Your task to perform on an android device: choose inbox layout in the gmail app Image 0: 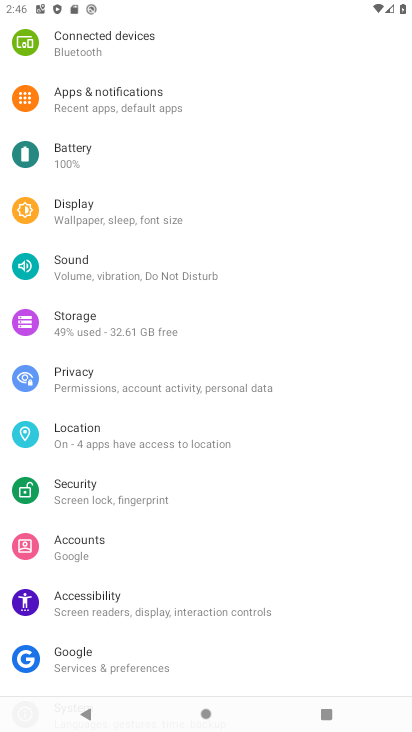
Step 0: press home button
Your task to perform on an android device: choose inbox layout in the gmail app Image 1: 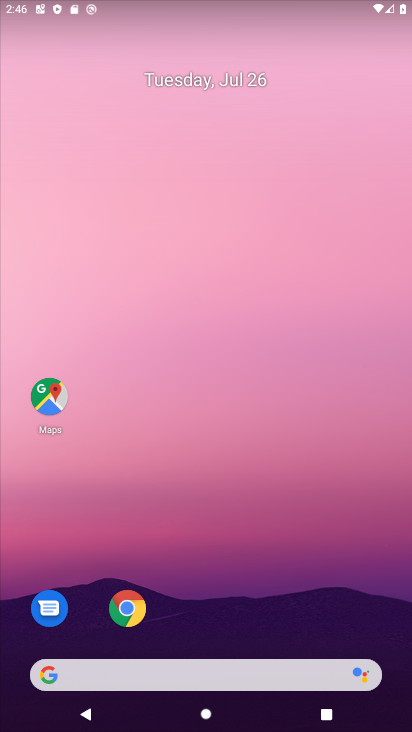
Step 1: drag from (332, 505) to (301, 209)
Your task to perform on an android device: choose inbox layout in the gmail app Image 2: 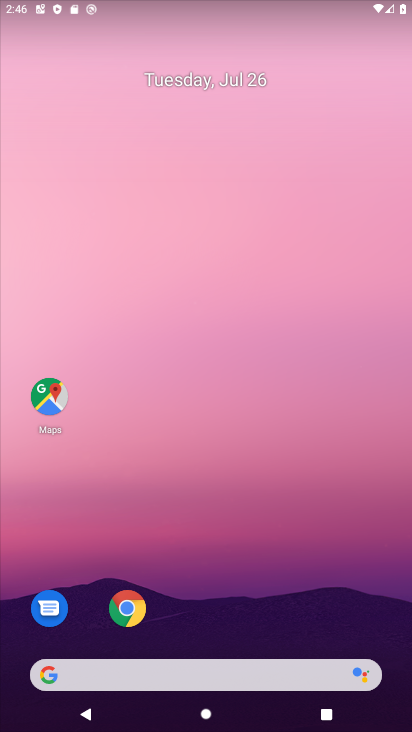
Step 2: drag from (159, 588) to (233, 72)
Your task to perform on an android device: choose inbox layout in the gmail app Image 3: 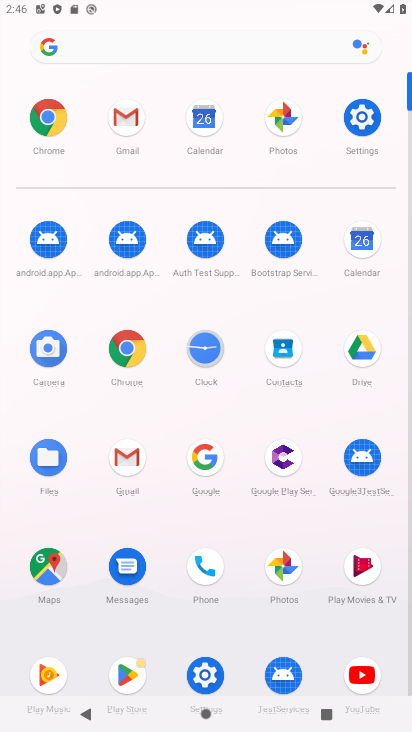
Step 3: click (124, 464)
Your task to perform on an android device: choose inbox layout in the gmail app Image 4: 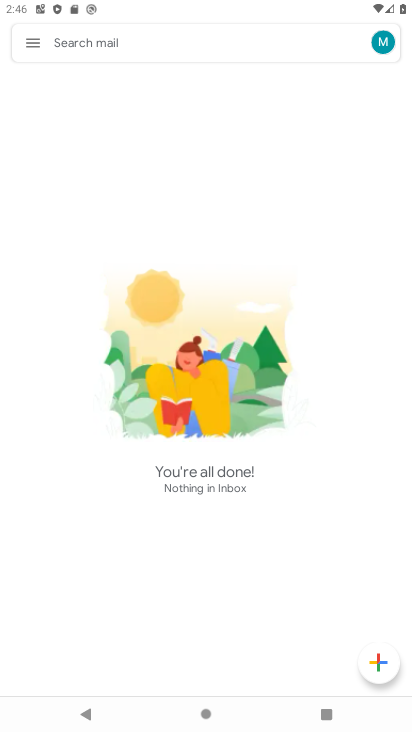
Step 4: task complete